Your task to perform on an android device: turn on the 12-hour format for clock Image 0: 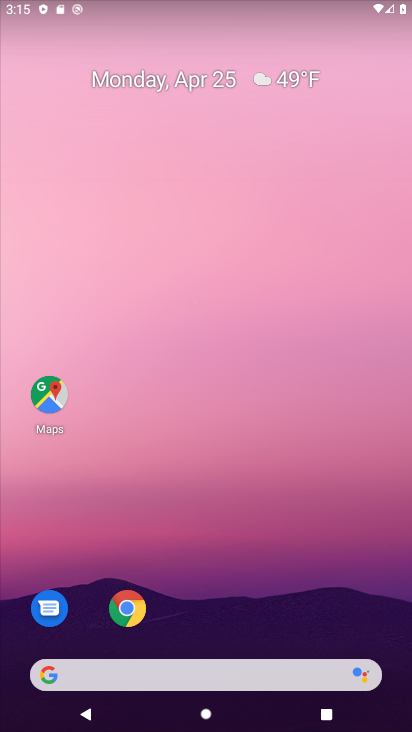
Step 0: drag from (206, 589) to (181, 87)
Your task to perform on an android device: turn on the 12-hour format for clock Image 1: 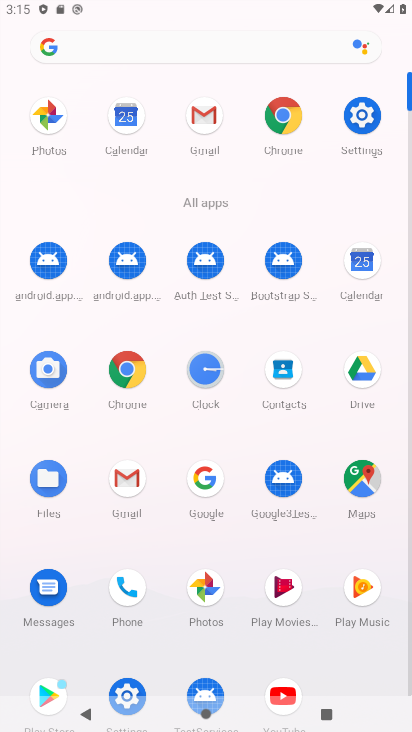
Step 1: click (197, 380)
Your task to perform on an android device: turn on the 12-hour format for clock Image 2: 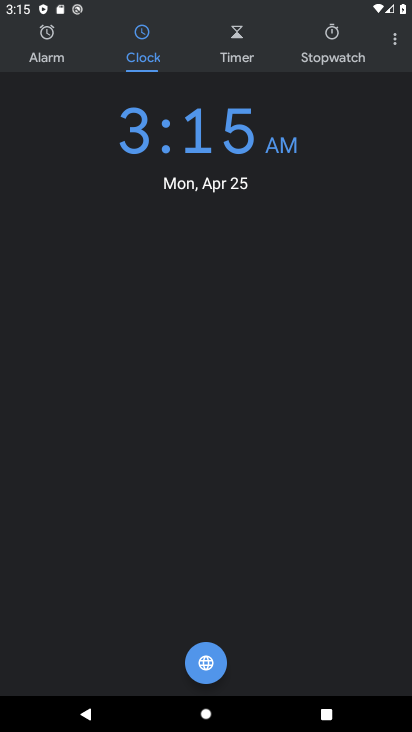
Step 2: press home button
Your task to perform on an android device: turn on the 12-hour format for clock Image 3: 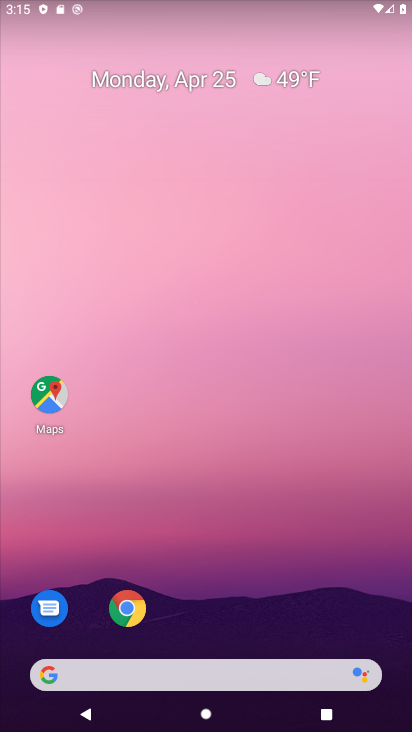
Step 3: drag from (172, 659) to (128, 23)
Your task to perform on an android device: turn on the 12-hour format for clock Image 4: 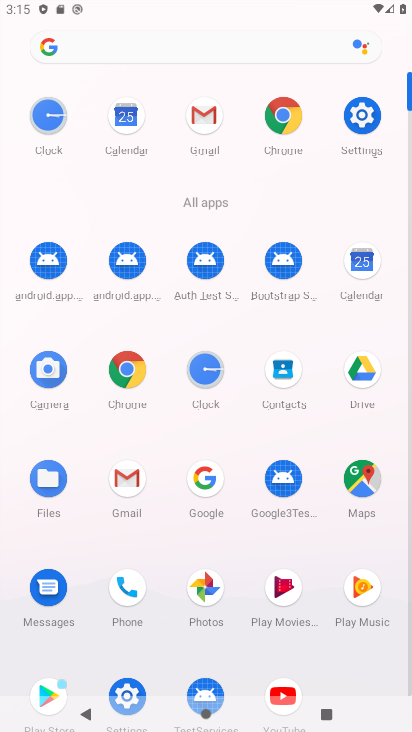
Step 4: click (355, 133)
Your task to perform on an android device: turn on the 12-hour format for clock Image 5: 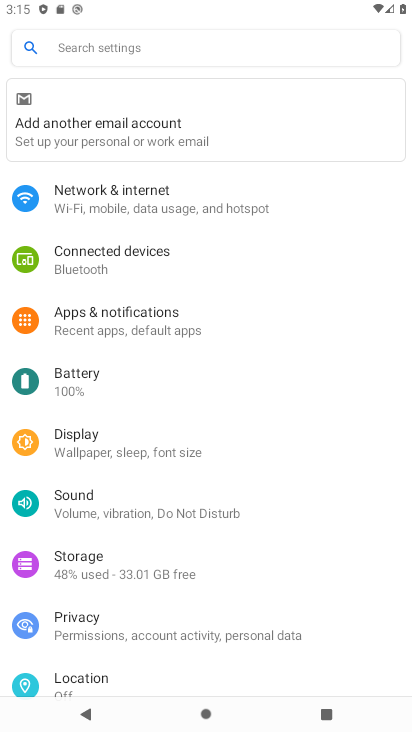
Step 5: drag from (145, 639) to (155, 100)
Your task to perform on an android device: turn on the 12-hour format for clock Image 6: 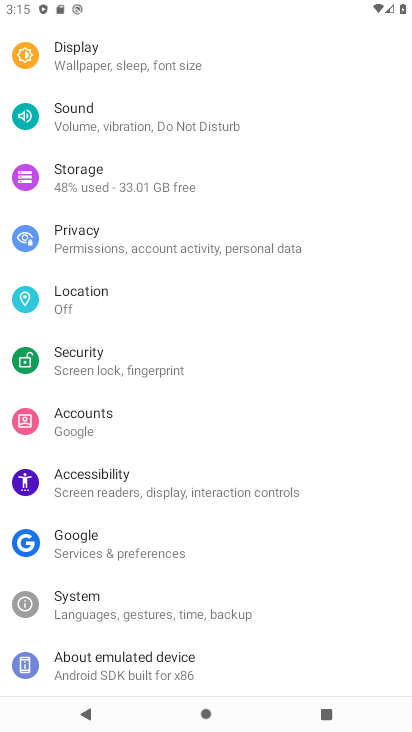
Step 6: click (96, 620)
Your task to perform on an android device: turn on the 12-hour format for clock Image 7: 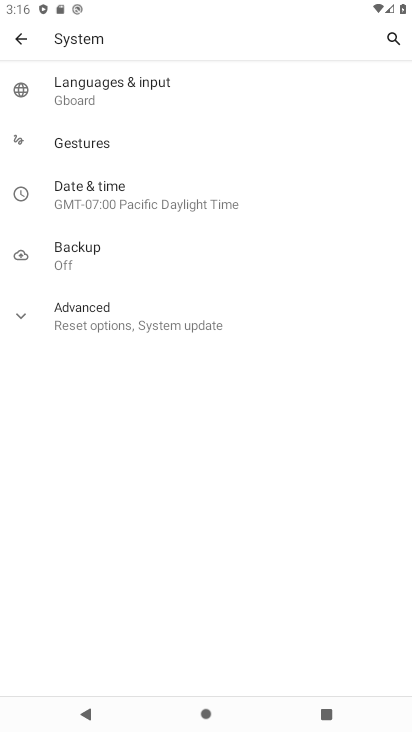
Step 7: click (120, 204)
Your task to perform on an android device: turn on the 12-hour format for clock Image 8: 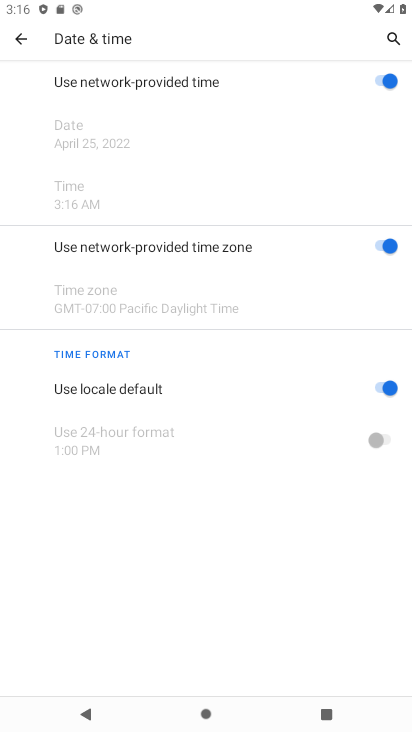
Step 8: task complete